Your task to perform on an android device: turn on the 12-hour format for clock Image 0: 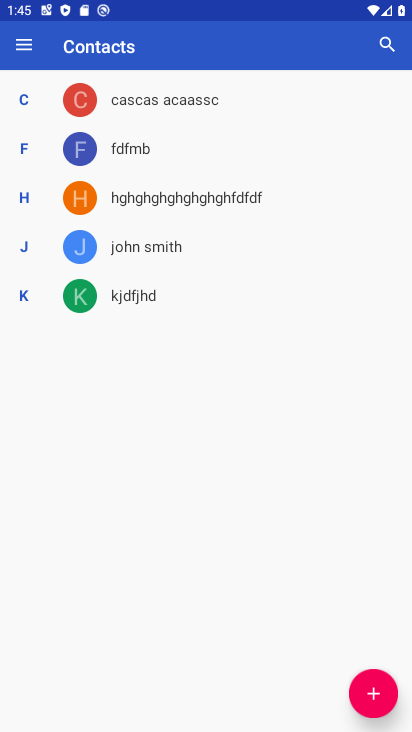
Step 0: press home button
Your task to perform on an android device: turn on the 12-hour format for clock Image 1: 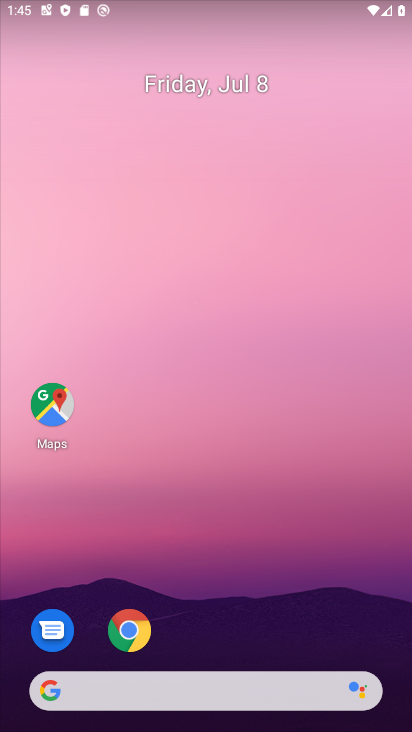
Step 1: drag from (232, 638) to (285, 20)
Your task to perform on an android device: turn on the 12-hour format for clock Image 2: 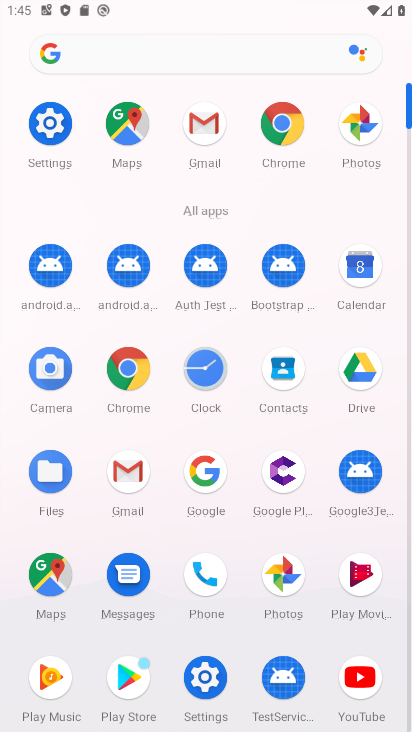
Step 2: click (202, 362)
Your task to perform on an android device: turn on the 12-hour format for clock Image 3: 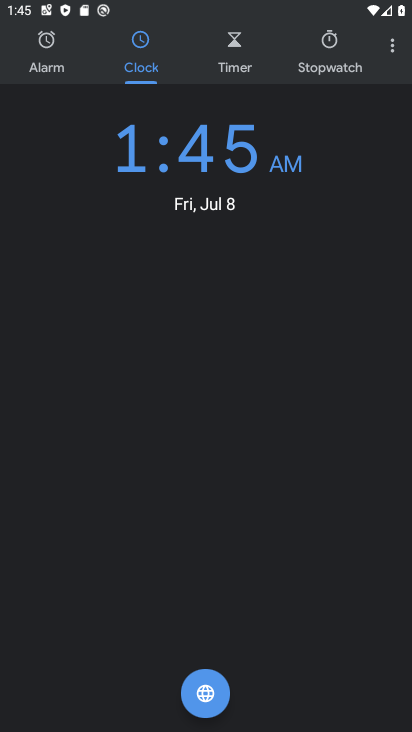
Step 3: click (382, 50)
Your task to perform on an android device: turn on the 12-hour format for clock Image 4: 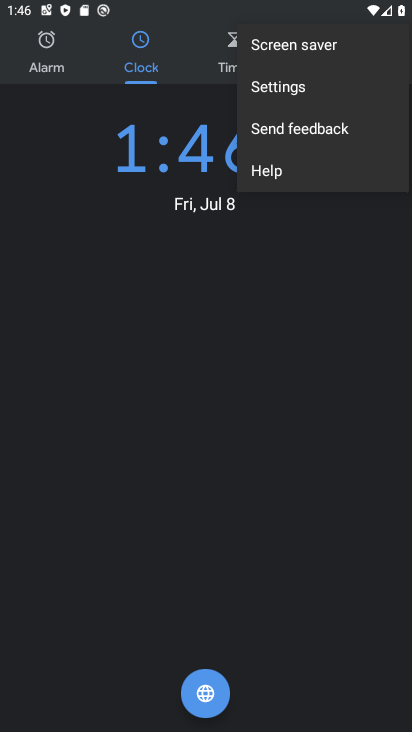
Step 4: click (285, 87)
Your task to perform on an android device: turn on the 12-hour format for clock Image 5: 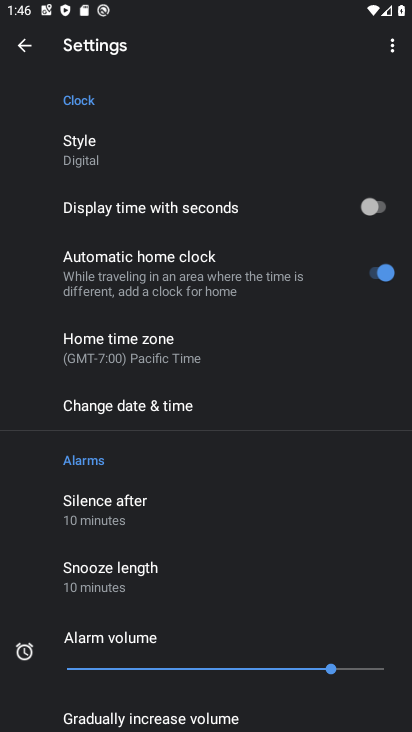
Step 5: click (199, 409)
Your task to perform on an android device: turn on the 12-hour format for clock Image 6: 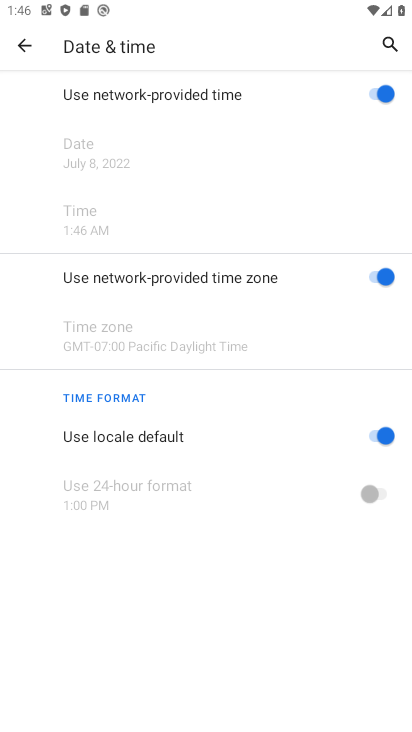
Step 6: task complete